Your task to perform on an android device: Open Yahoo.com Image 0: 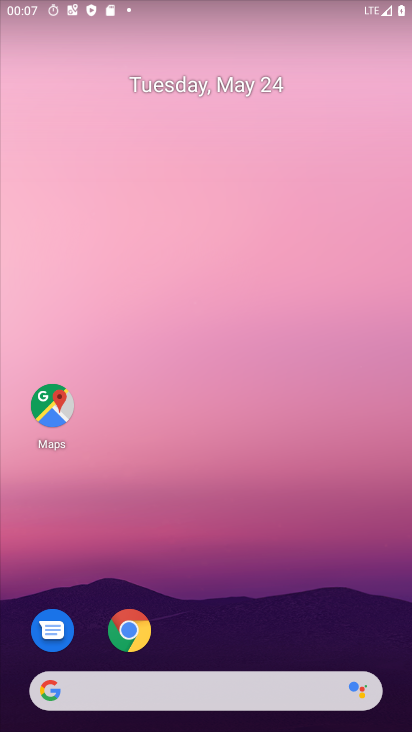
Step 0: click (126, 636)
Your task to perform on an android device: Open Yahoo.com Image 1: 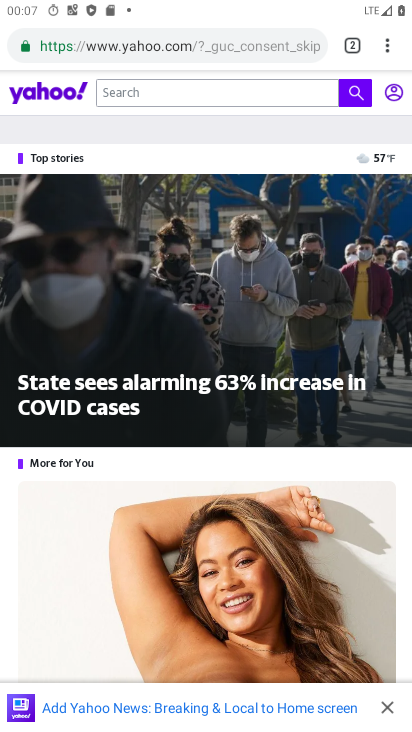
Step 1: task complete